Your task to perform on an android device: Open Youtube and go to "Your channel" Image 0: 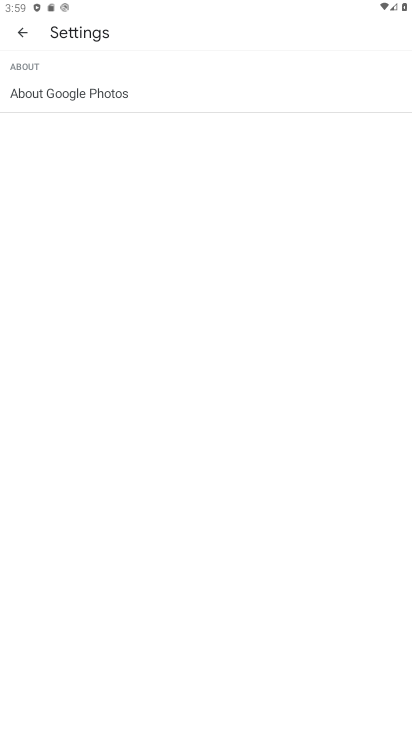
Step 0: click (18, 26)
Your task to perform on an android device: Open Youtube and go to "Your channel" Image 1: 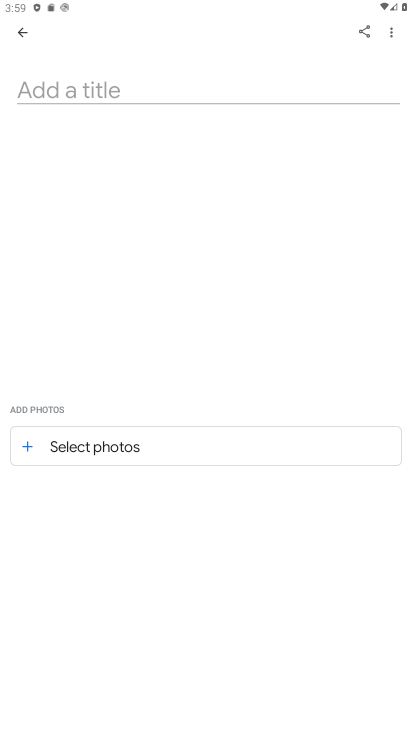
Step 1: click (29, 36)
Your task to perform on an android device: Open Youtube and go to "Your channel" Image 2: 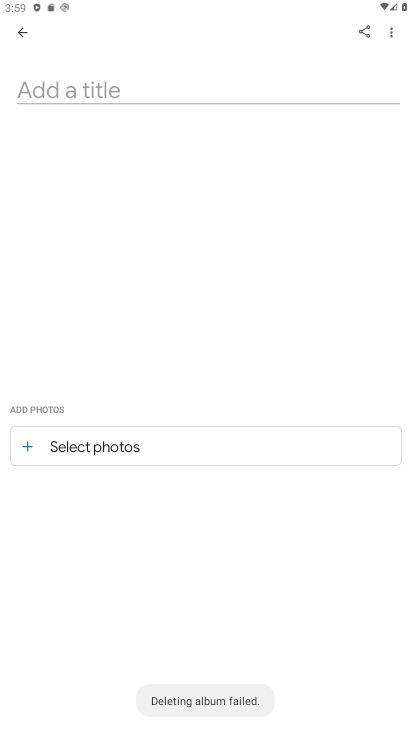
Step 2: press back button
Your task to perform on an android device: Open Youtube and go to "Your channel" Image 3: 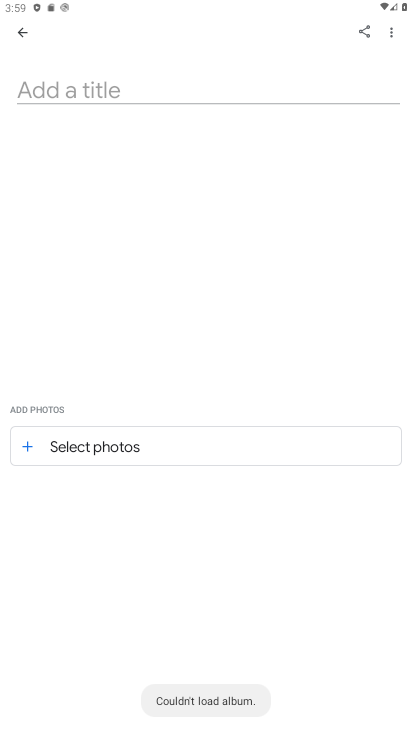
Step 3: press home button
Your task to perform on an android device: Open Youtube and go to "Your channel" Image 4: 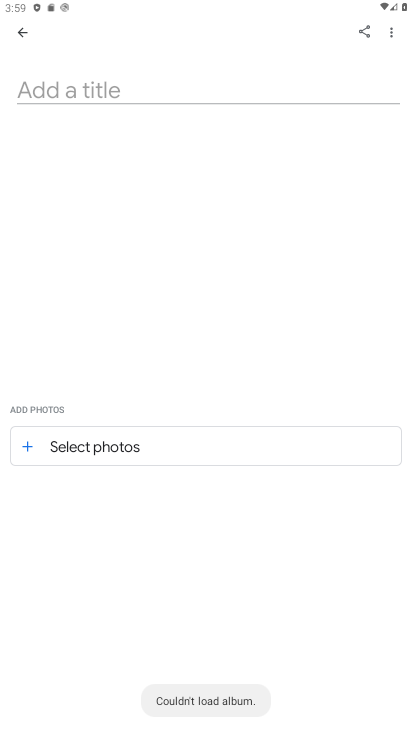
Step 4: press home button
Your task to perform on an android device: Open Youtube and go to "Your channel" Image 5: 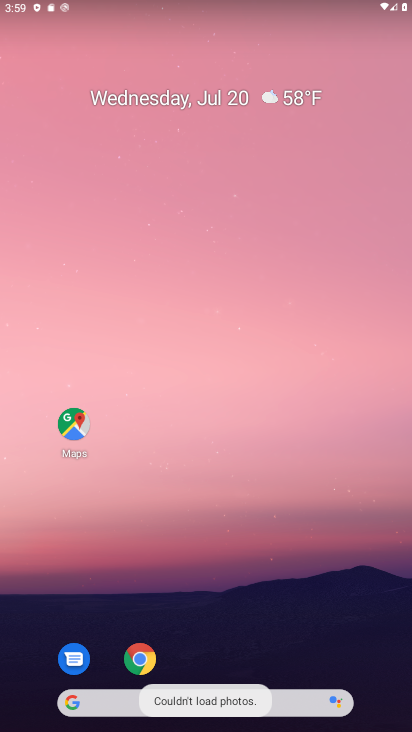
Step 5: drag from (225, 564) to (193, 62)
Your task to perform on an android device: Open Youtube and go to "Your channel" Image 6: 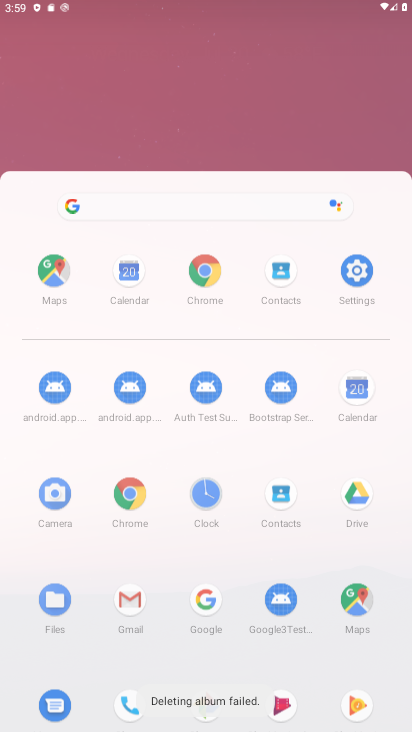
Step 6: drag from (265, 461) to (179, 129)
Your task to perform on an android device: Open Youtube and go to "Your channel" Image 7: 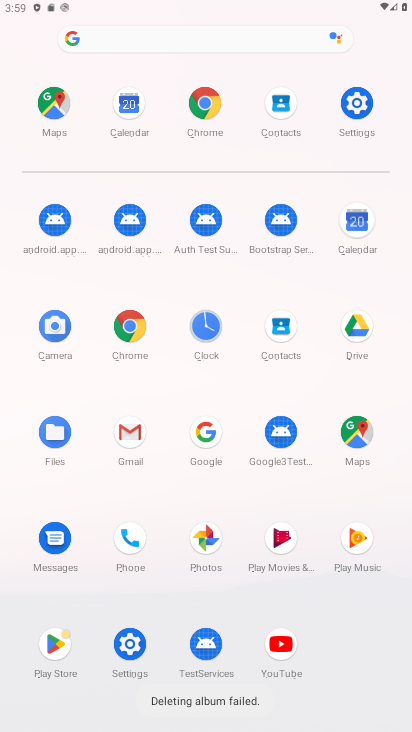
Step 7: click (279, 644)
Your task to perform on an android device: Open Youtube and go to "Your channel" Image 8: 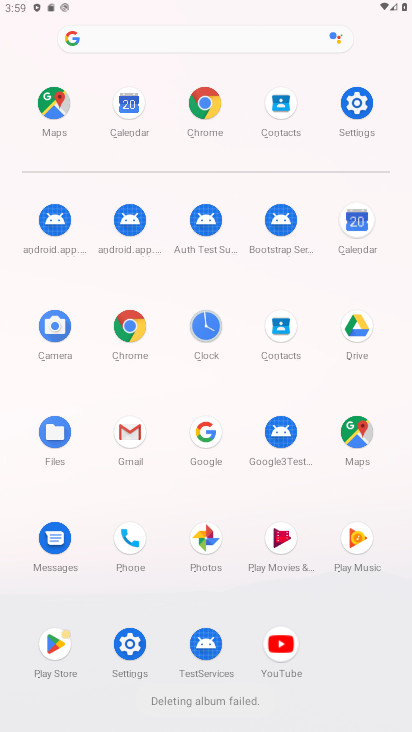
Step 8: click (286, 641)
Your task to perform on an android device: Open Youtube and go to "Your channel" Image 9: 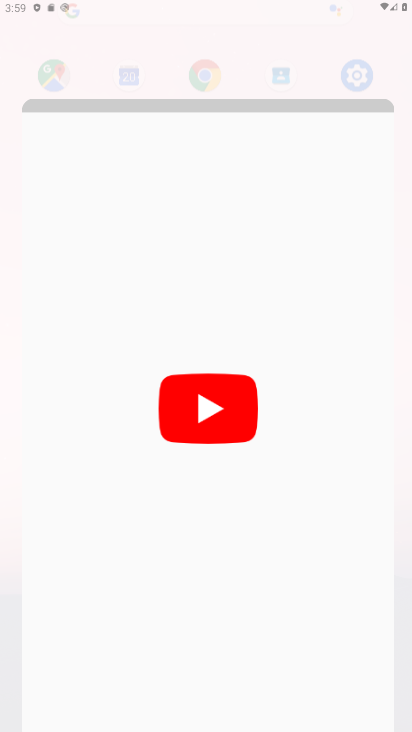
Step 9: click (287, 640)
Your task to perform on an android device: Open Youtube and go to "Your channel" Image 10: 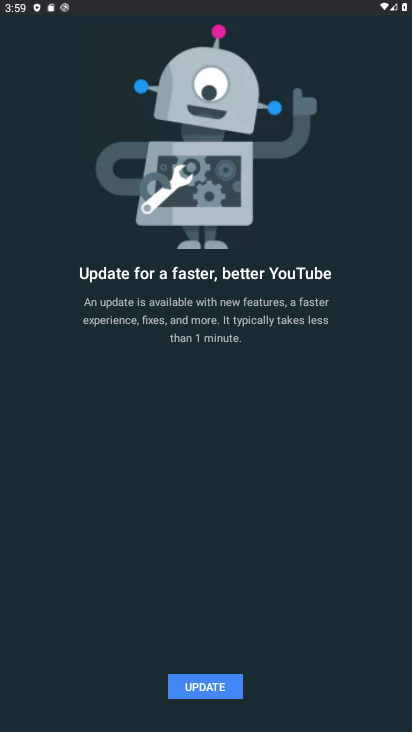
Step 10: click (209, 672)
Your task to perform on an android device: Open Youtube and go to "Your channel" Image 11: 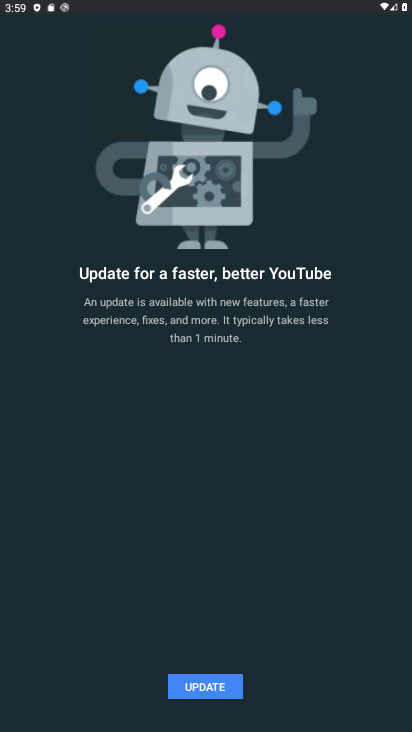
Step 11: click (207, 672)
Your task to perform on an android device: Open Youtube and go to "Your channel" Image 12: 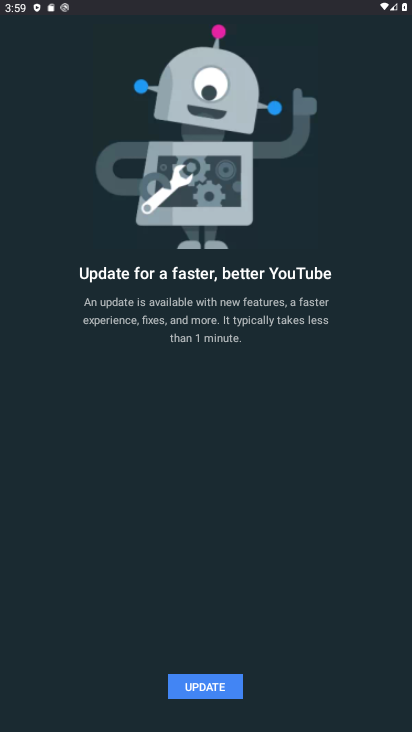
Step 12: click (205, 680)
Your task to perform on an android device: Open Youtube and go to "Your channel" Image 13: 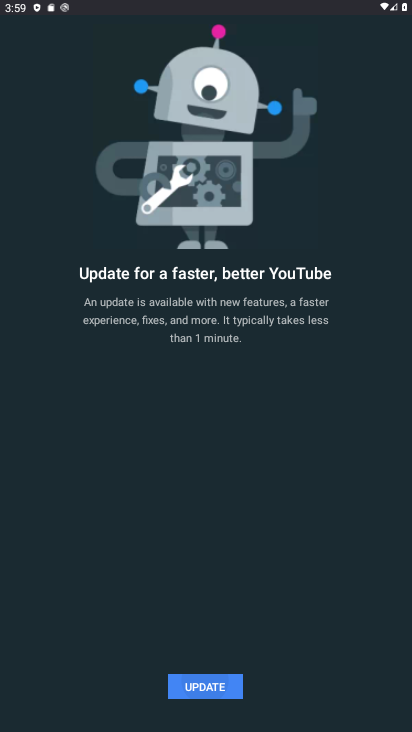
Step 13: click (205, 680)
Your task to perform on an android device: Open Youtube and go to "Your channel" Image 14: 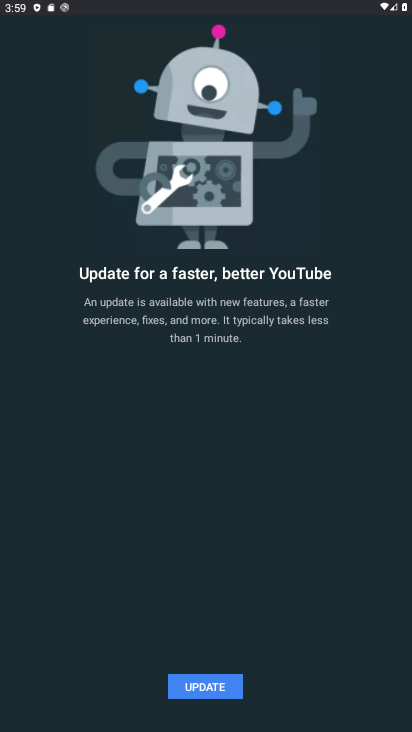
Step 14: click (205, 680)
Your task to perform on an android device: Open Youtube and go to "Your channel" Image 15: 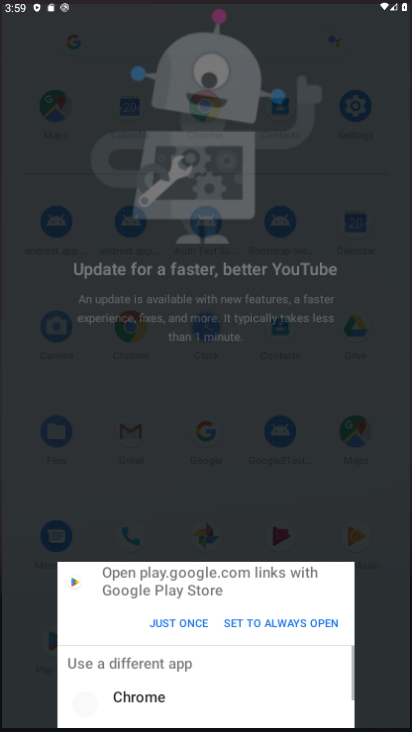
Step 15: click (205, 680)
Your task to perform on an android device: Open Youtube and go to "Your channel" Image 16: 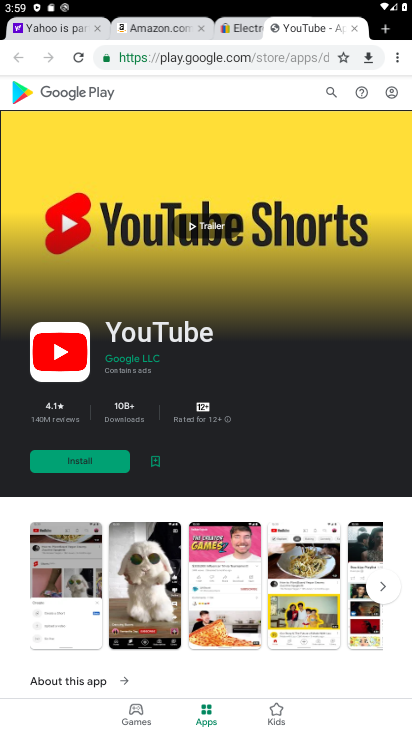
Step 16: task complete